Your task to perform on an android device: turn on location history Image 0: 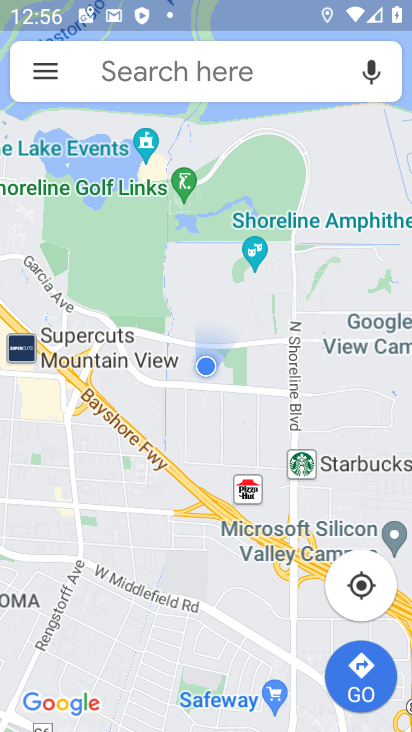
Step 0: press home button
Your task to perform on an android device: turn on location history Image 1: 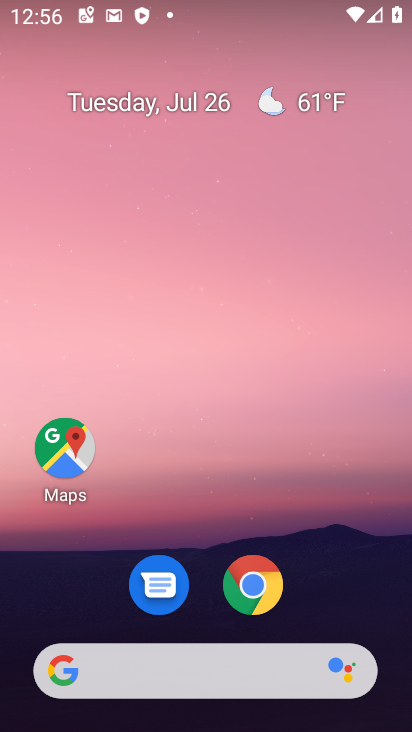
Step 1: drag from (163, 679) to (254, 110)
Your task to perform on an android device: turn on location history Image 2: 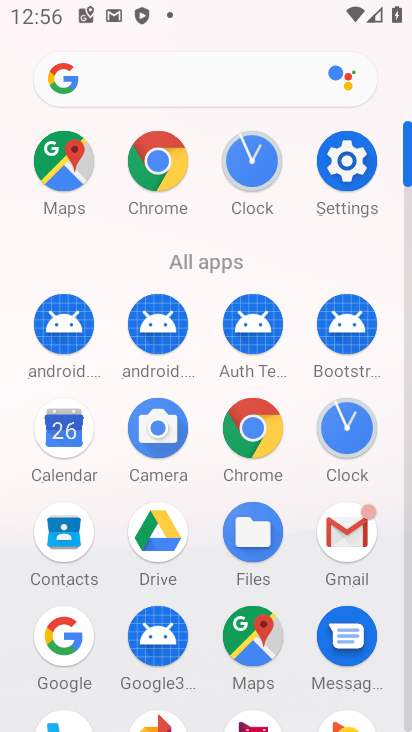
Step 2: click (72, 167)
Your task to perform on an android device: turn on location history Image 3: 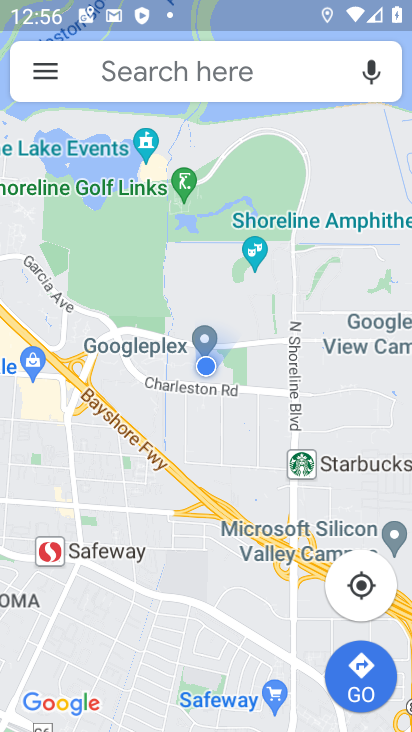
Step 3: click (45, 73)
Your task to perform on an android device: turn on location history Image 4: 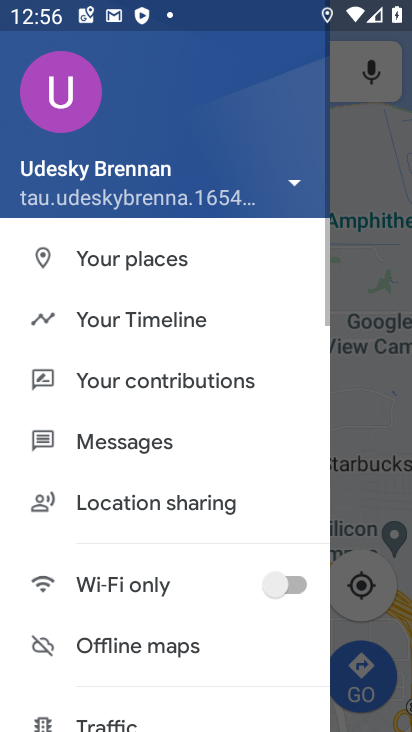
Step 4: click (168, 321)
Your task to perform on an android device: turn on location history Image 5: 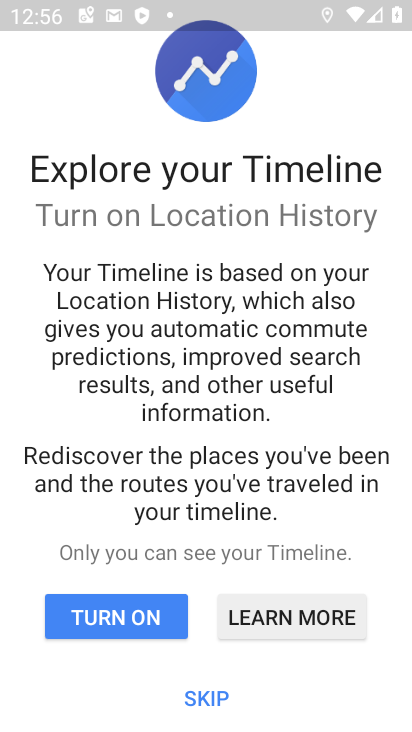
Step 5: click (218, 699)
Your task to perform on an android device: turn on location history Image 6: 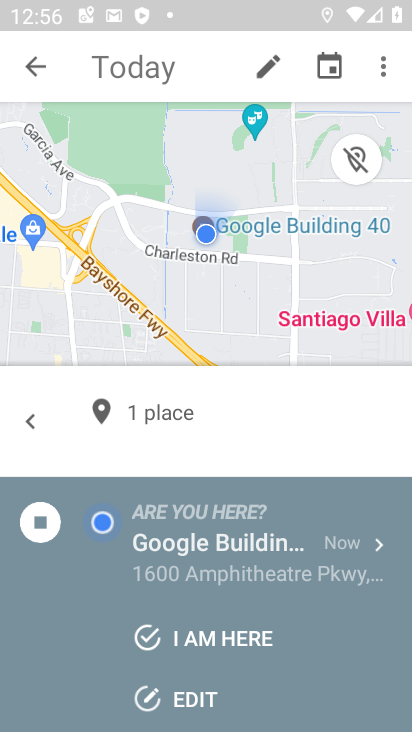
Step 6: click (382, 60)
Your task to perform on an android device: turn on location history Image 7: 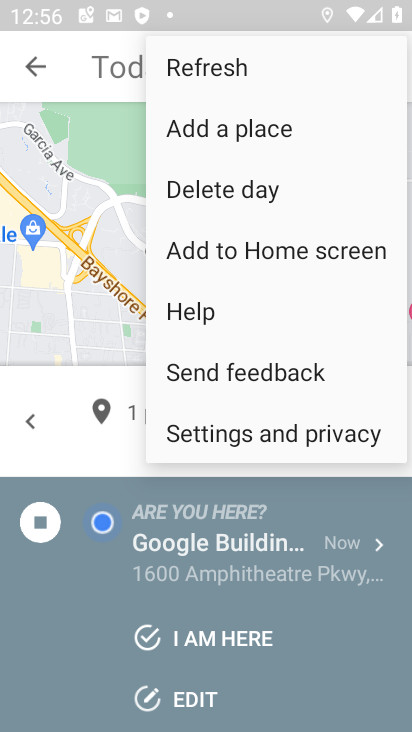
Step 7: click (254, 442)
Your task to perform on an android device: turn on location history Image 8: 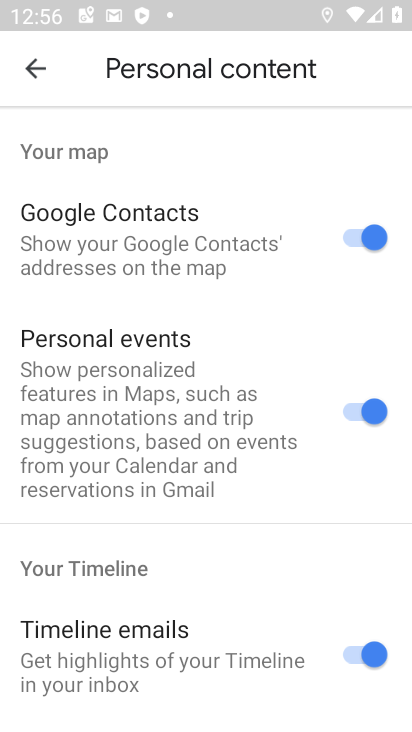
Step 8: drag from (188, 587) to (329, 228)
Your task to perform on an android device: turn on location history Image 9: 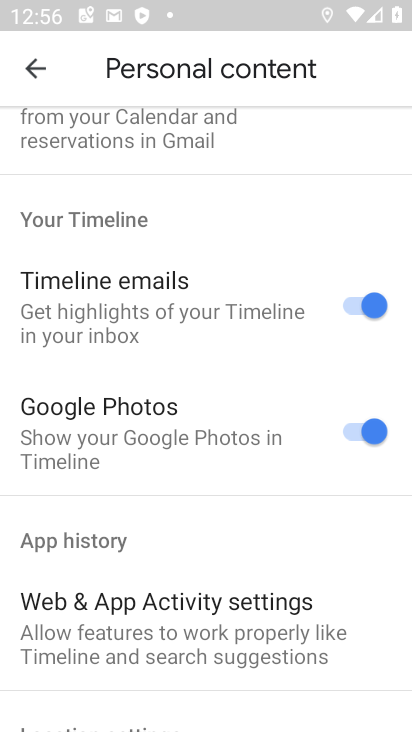
Step 9: drag from (171, 523) to (299, 3)
Your task to perform on an android device: turn on location history Image 10: 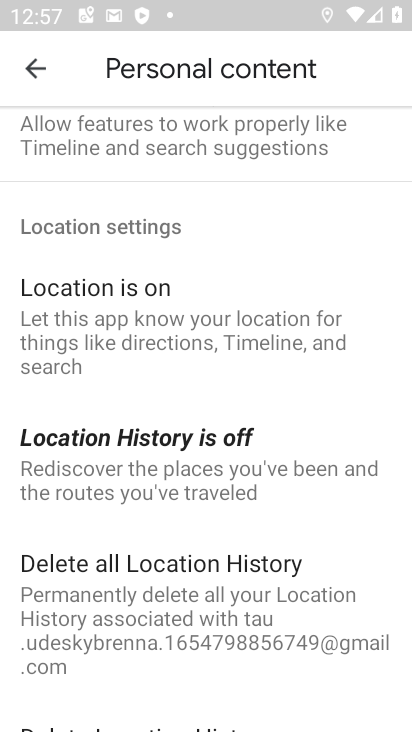
Step 10: click (197, 444)
Your task to perform on an android device: turn on location history Image 11: 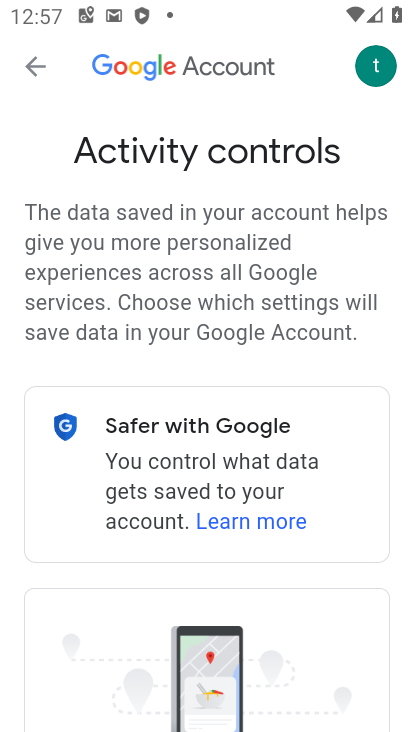
Step 11: task complete